Your task to perform on an android device: Open Yahoo.com Image 0: 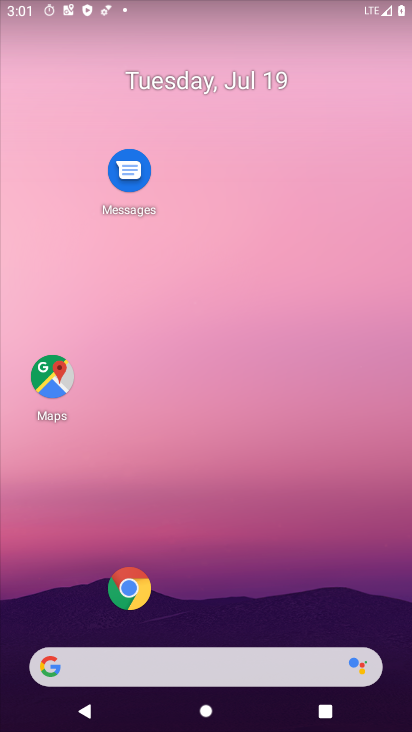
Step 0: click (90, 671)
Your task to perform on an android device: Open Yahoo.com Image 1: 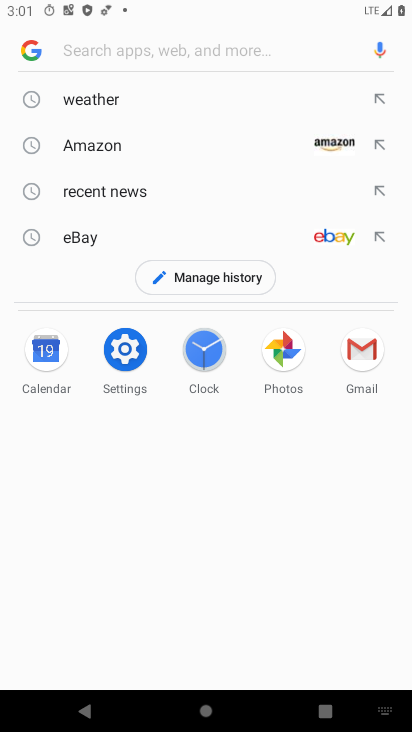
Step 1: type "Yahoo.com"
Your task to perform on an android device: Open Yahoo.com Image 2: 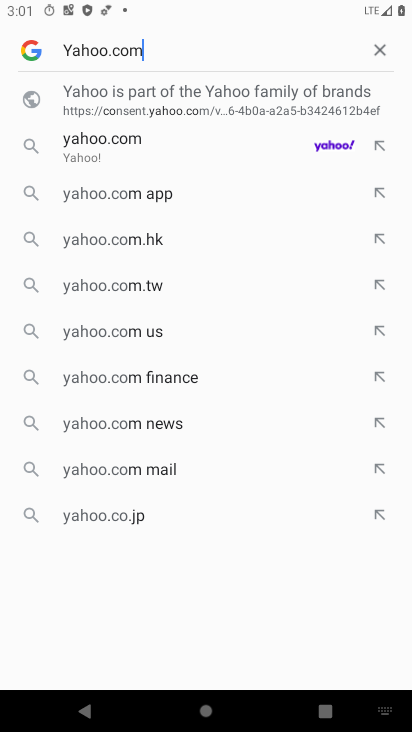
Step 2: type ""
Your task to perform on an android device: Open Yahoo.com Image 3: 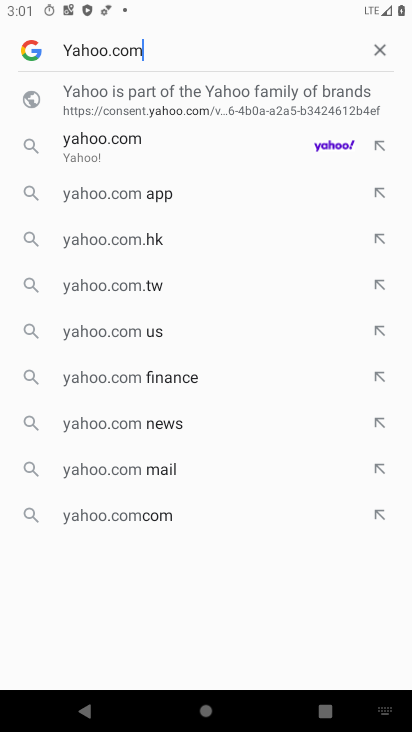
Step 3: click (132, 154)
Your task to perform on an android device: Open Yahoo.com Image 4: 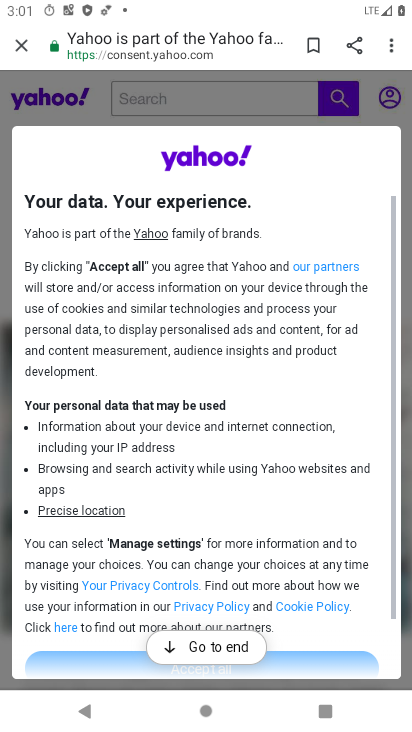
Step 4: task complete